Your task to perform on an android device: Open network settings Image 0: 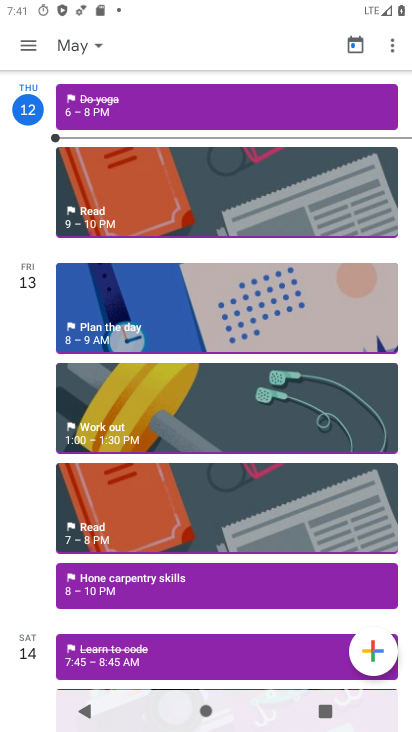
Step 0: press home button
Your task to perform on an android device: Open network settings Image 1: 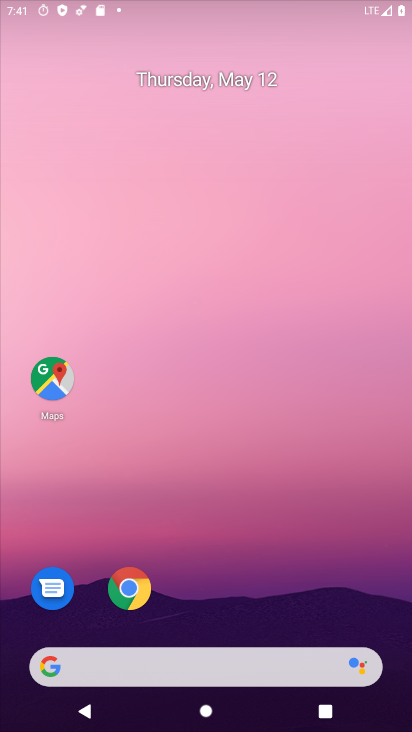
Step 1: drag from (302, 542) to (292, 98)
Your task to perform on an android device: Open network settings Image 2: 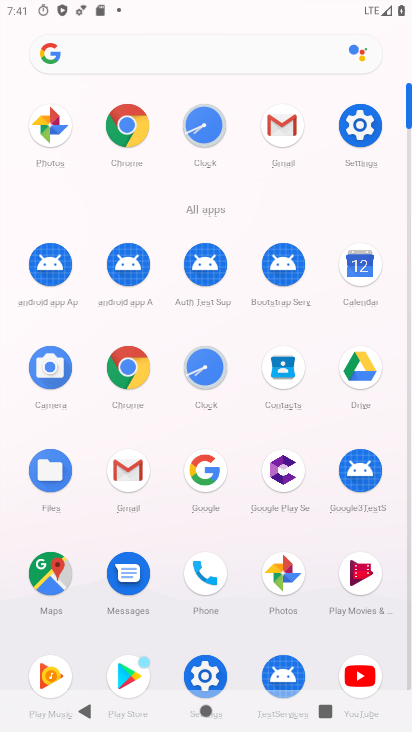
Step 2: click (370, 140)
Your task to perform on an android device: Open network settings Image 3: 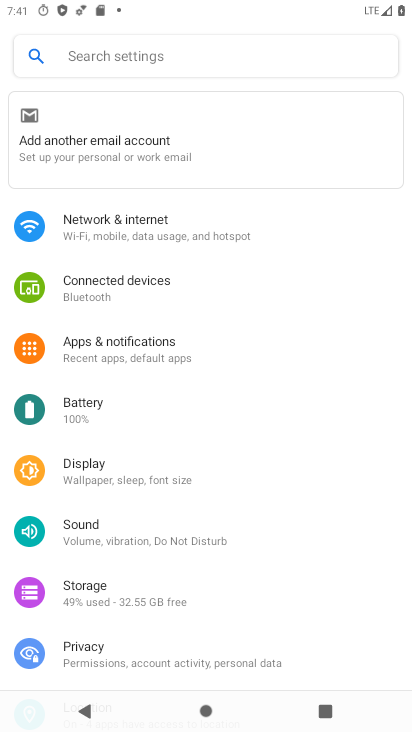
Step 3: click (170, 242)
Your task to perform on an android device: Open network settings Image 4: 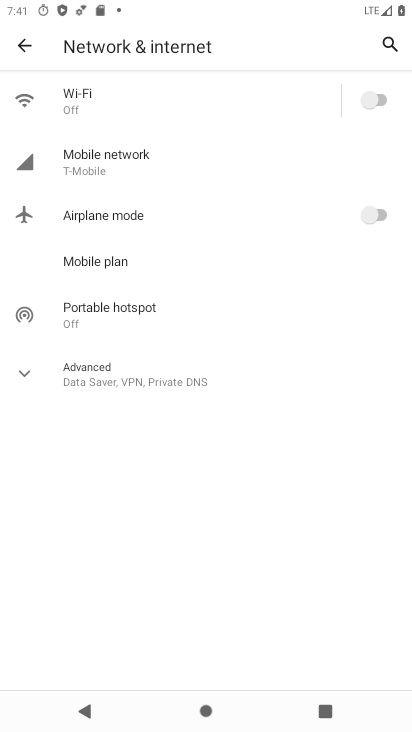
Step 4: task complete